Your task to perform on an android device: Search for seafood restaurants on Google Maps Image 0: 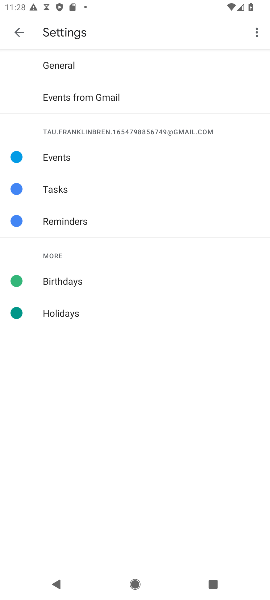
Step 0: press back button
Your task to perform on an android device: Search for seafood restaurants on Google Maps Image 1: 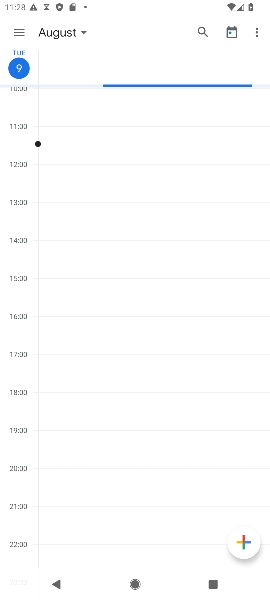
Step 1: press home button
Your task to perform on an android device: Search for seafood restaurants on Google Maps Image 2: 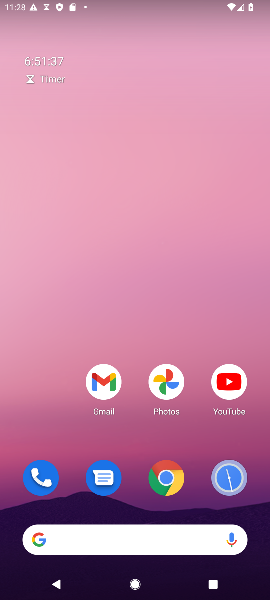
Step 2: drag from (195, 441) to (267, 280)
Your task to perform on an android device: Search for seafood restaurants on Google Maps Image 3: 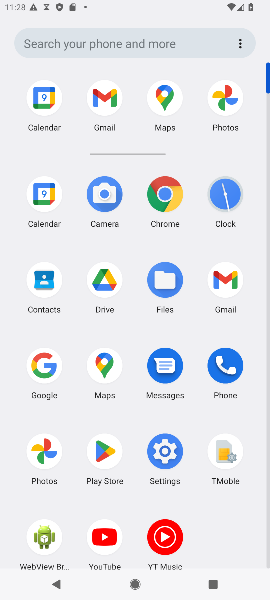
Step 3: click (165, 108)
Your task to perform on an android device: Search for seafood restaurants on Google Maps Image 4: 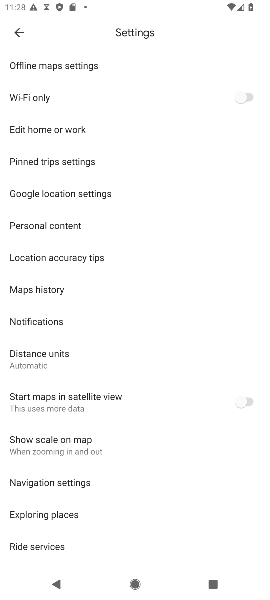
Step 4: click (18, 28)
Your task to perform on an android device: Search for seafood restaurants on Google Maps Image 5: 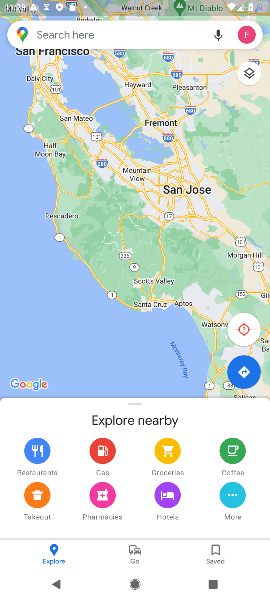
Step 5: click (102, 42)
Your task to perform on an android device: Search for seafood restaurants on Google Maps Image 6: 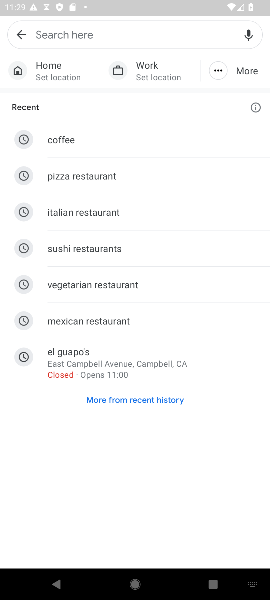
Step 6: type "seafood restaurants"
Your task to perform on an android device: Search for seafood restaurants on Google Maps Image 7: 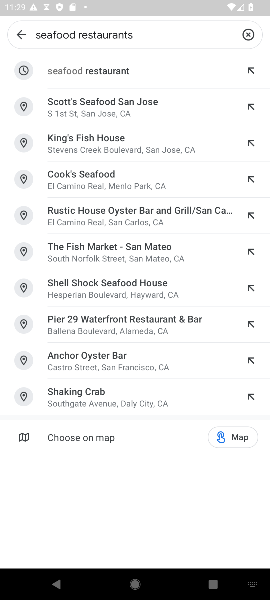
Step 7: click (161, 80)
Your task to perform on an android device: Search for seafood restaurants on Google Maps Image 8: 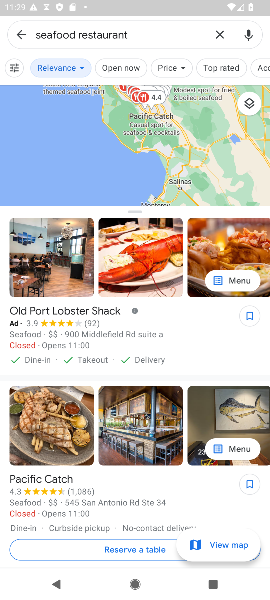
Step 8: task complete